Your task to perform on an android device: Open maps Image 0: 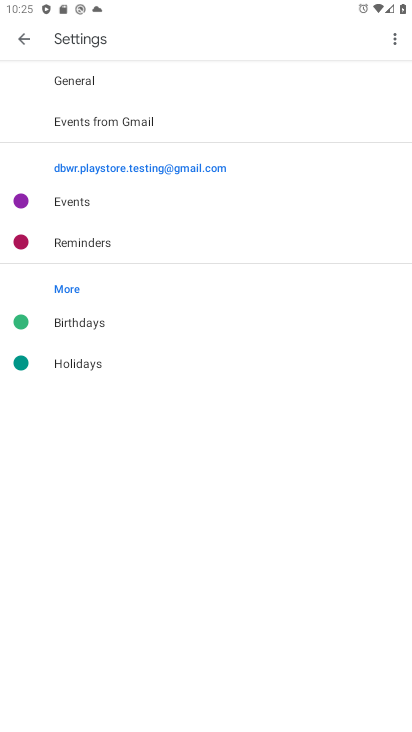
Step 0: press home button
Your task to perform on an android device: Open maps Image 1: 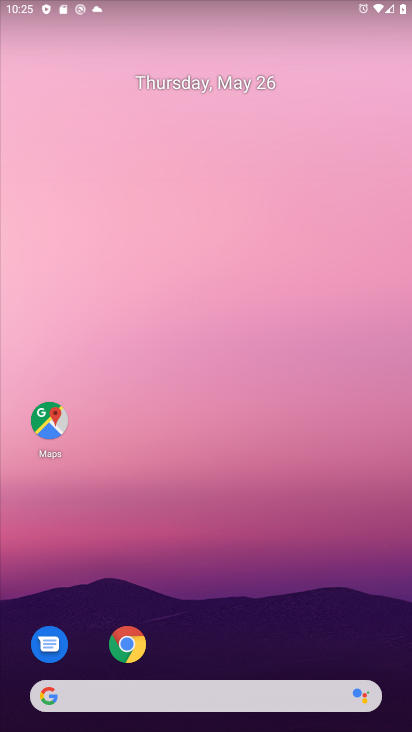
Step 1: click (56, 440)
Your task to perform on an android device: Open maps Image 2: 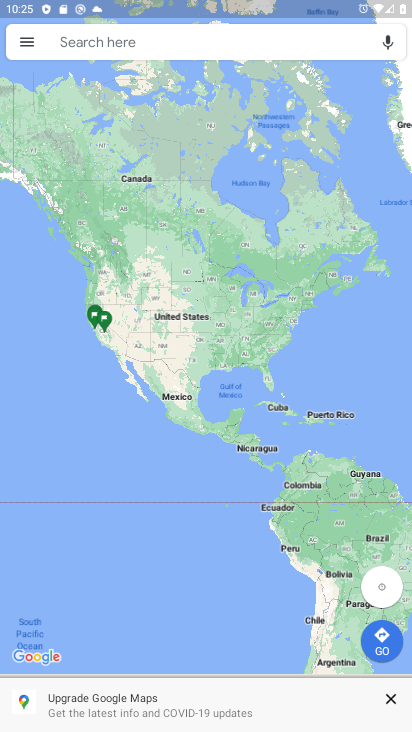
Step 2: task complete